Your task to perform on an android device: change the clock display to show seconds Image 0: 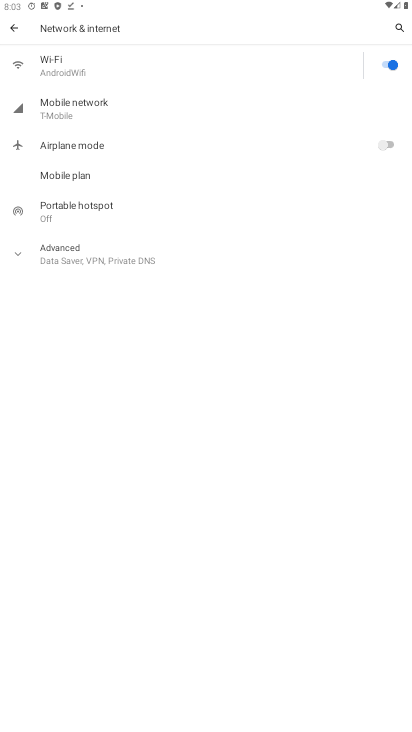
Step 0: press home button
Your task to perform on an android device: change the clock display to show seconds Image 1: 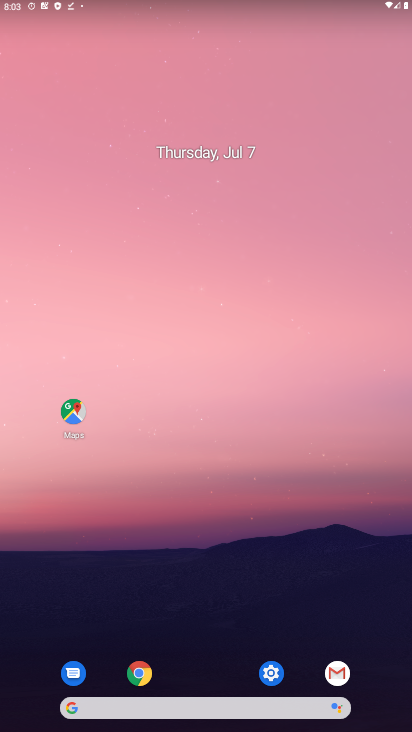
Step 1: drag from (229, 728) to (239, 280)
Your task to perform on an android device: change the clock display to show seconds Image 2: 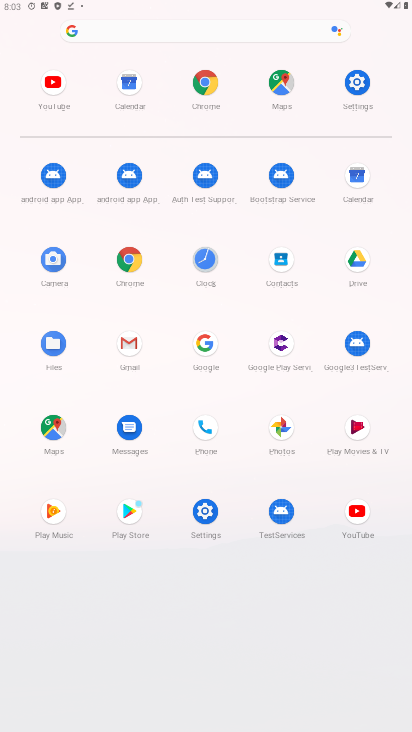
Step 2: click (210, 264)
Your task to perform on an android device: change the clock display to show seconds Image 3: 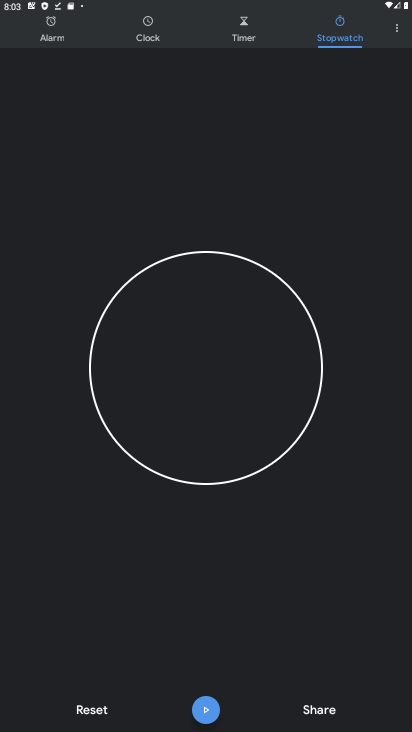
Step 3: click (391, 40)
Your task to perform on an android device: change the clock display to show seconds Image 4: 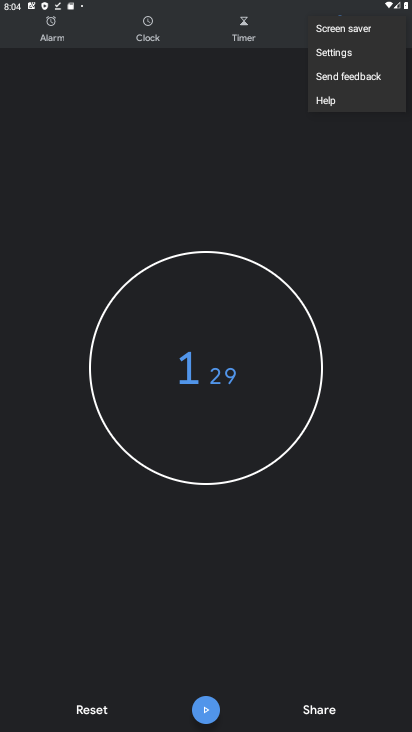
Step 4: click (335, 53)
Your task to perform on an android device: change the clock display to show seconds Image 5: 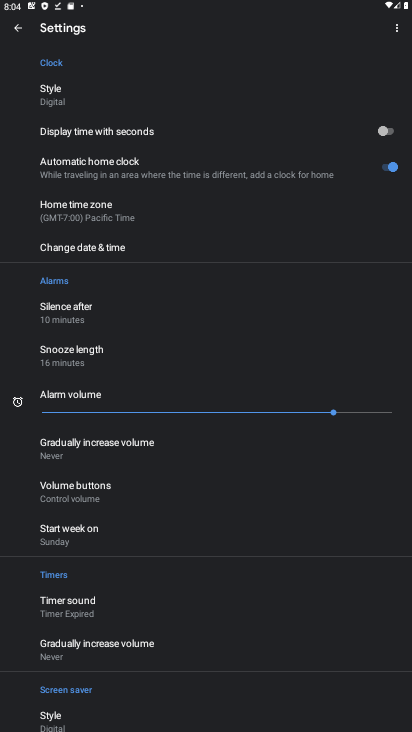
Step 5: click (382, 148)
Your task to perform on an android device: change the clock display to show seconds Image 6: 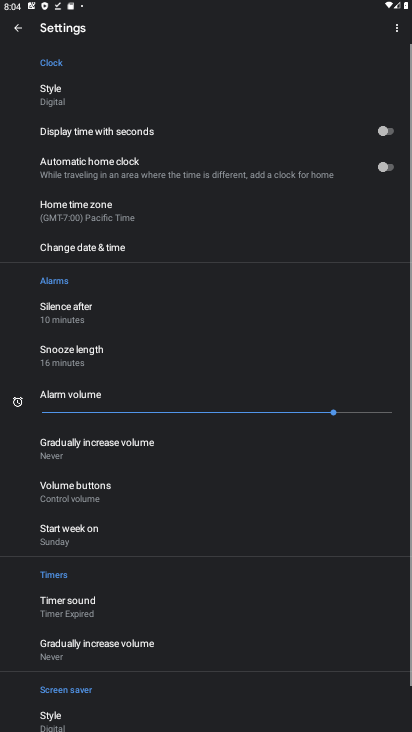
Step 6: click (388, 130)
Your task to perform on an android device: change the clock display to show seconds Image 7: 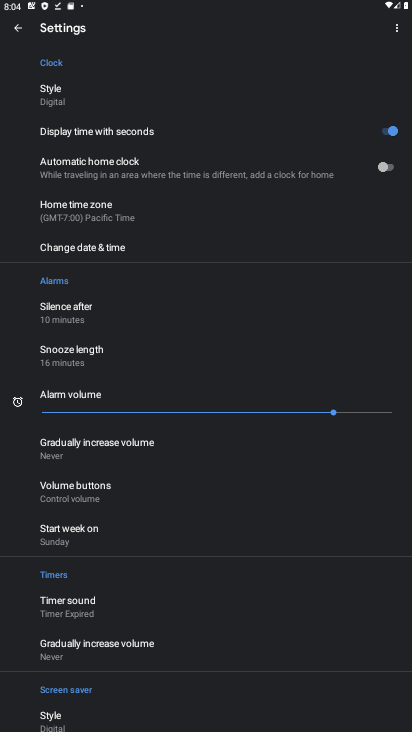
Step 7: task complete